Your task to perform on an android device: See recent photos Image 0: 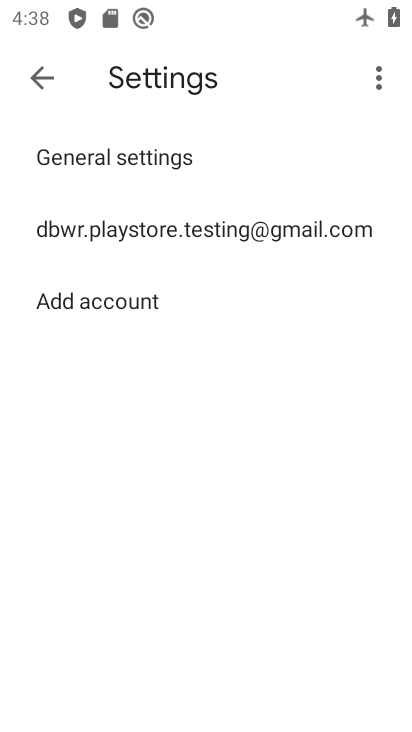
Step 0: drag from (343, 558) to (291, 322)
Your task to perform on an android device: See recent photos Image 1: 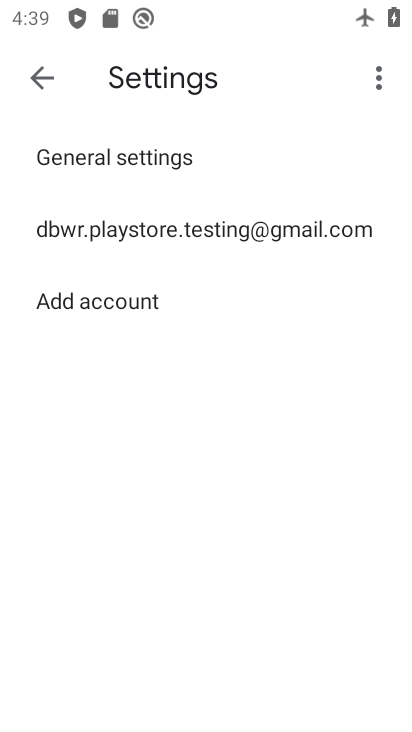
Step 1: press home button
Your task to perform on an android device: See recent photos Image 2: 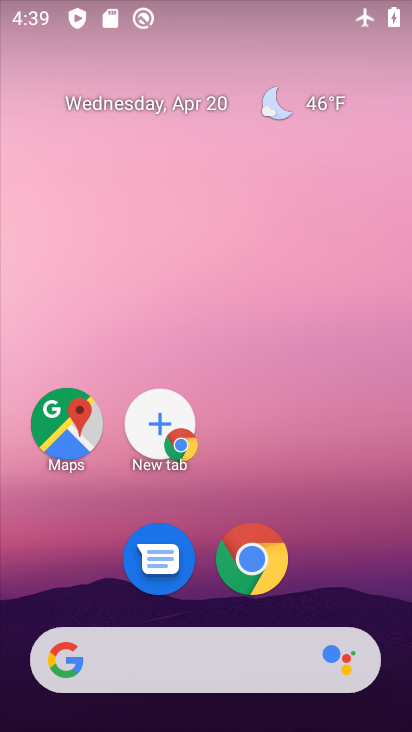
Step 2: drag from (337, 555) to (300, 0)
Your task to perform on an android device: See recent photos Image 3: 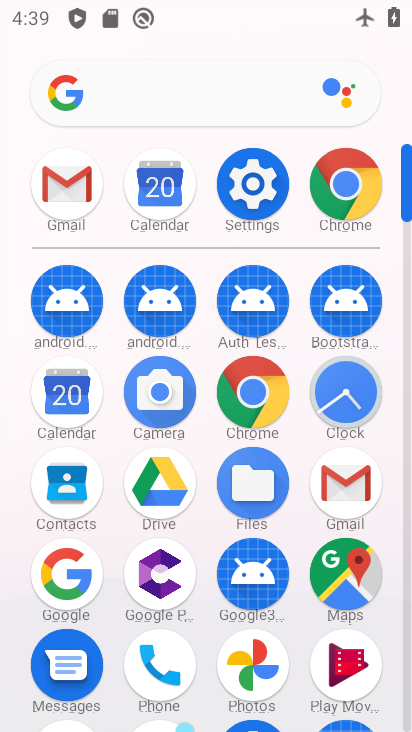
Step 3: click (244, 208)
Your task to perform on an android device: See recent photos Image 4: 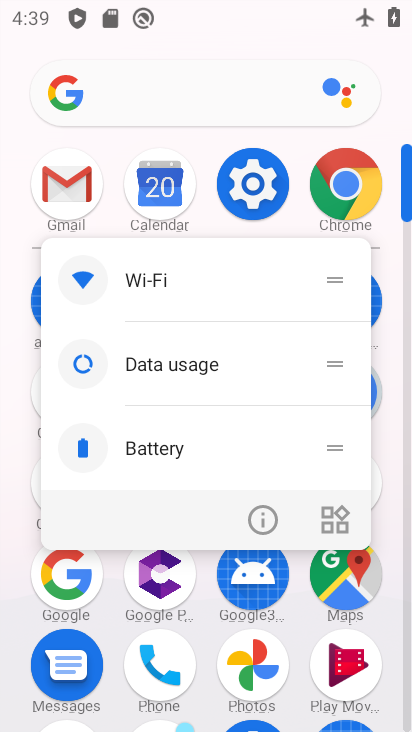
Step 4: click (244, 208)
Your task to perform on an android device: See recent photos Image 5: 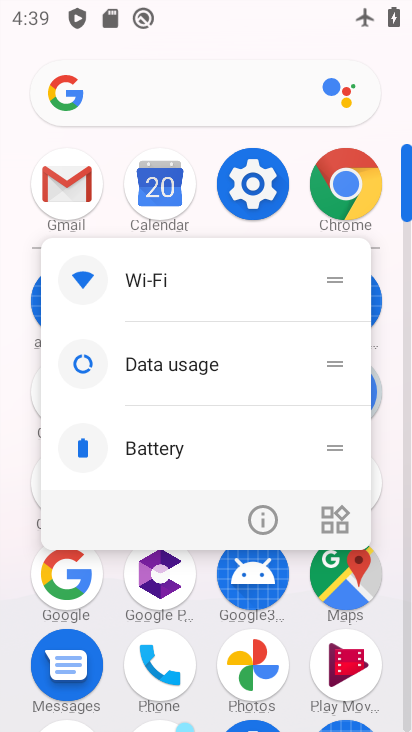
Step 5: click (247, 192)
Your task to perform on an android device: See recent photos Image 6: 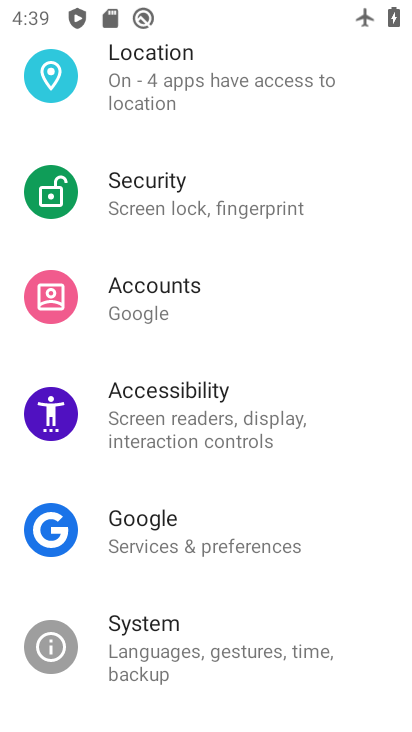
Step 6: drag from (218, 656) to (217, 359)
Your task to perform on an android device: See recent photos Image 7: 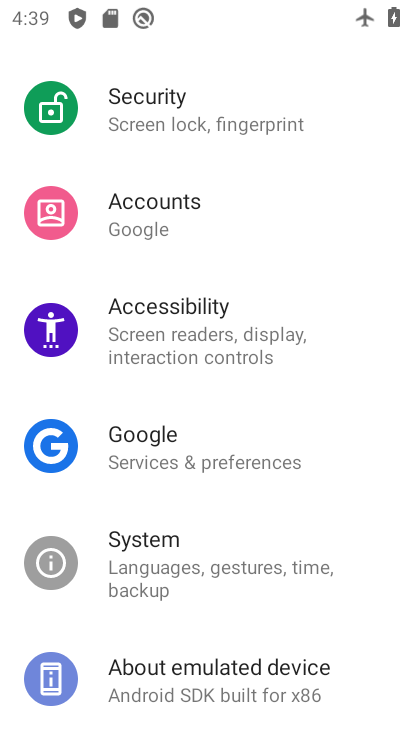
Step 7: click (202, 669)
Your task to perform on an android device: See recent photos Image 8: 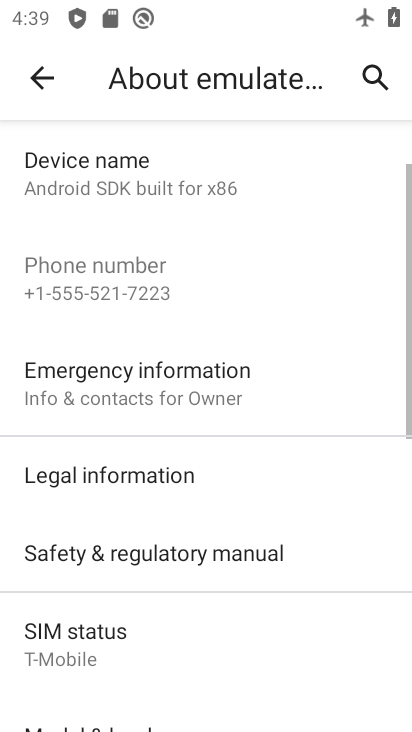
Step 8: drag from (202, 669) to (249, 113)
Your task to perform on an android device: See recent photos Image 9: 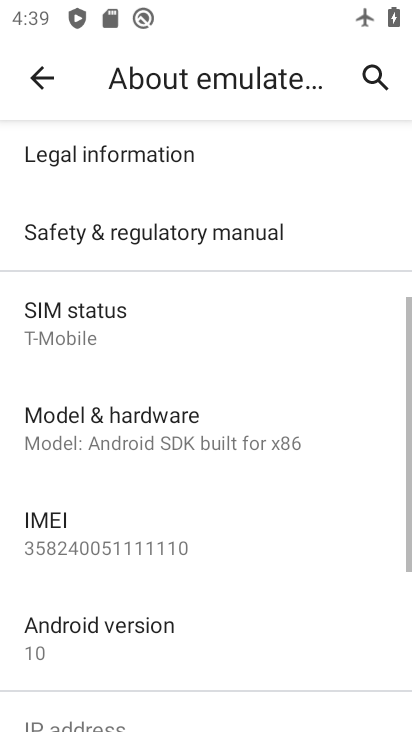
Step 9: drag from (253, 563) to (225, 202)
Your task to perform on an android device: See recent photos Image 10: 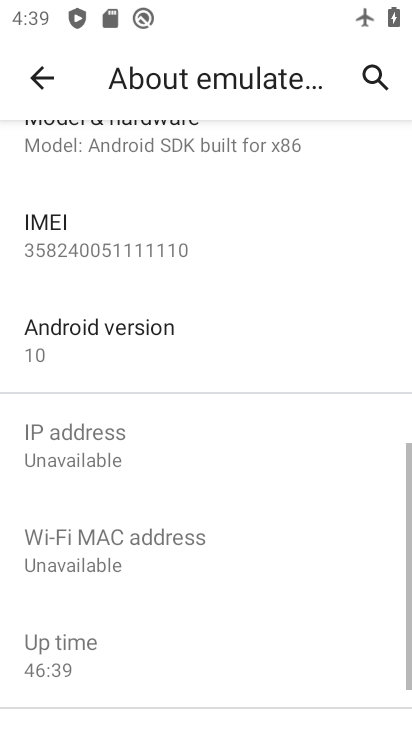
Step 10: drag from (212, 503) to (231, 161)
Your task to perform on an android device: See recent photos Image 11: 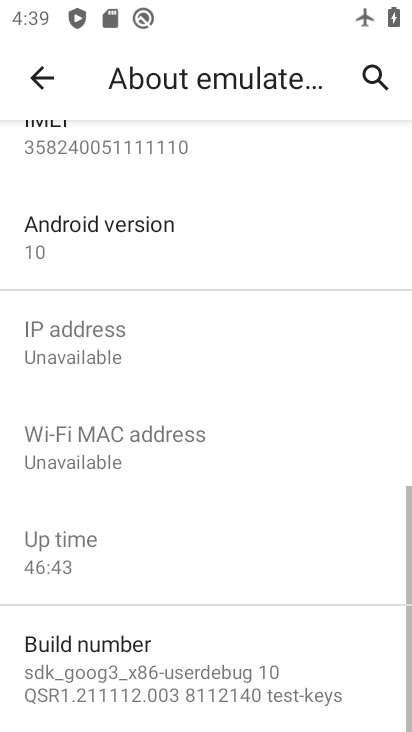
Step 11: click (55, 79)
Your task to perform on an android device: See recent photos Image 12: 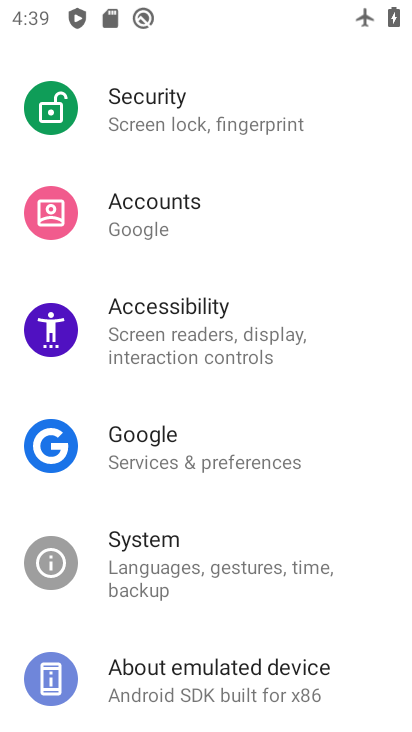
Step 12: click (182, 596)
Your task to perform on an android device: See recent photos Image 13: 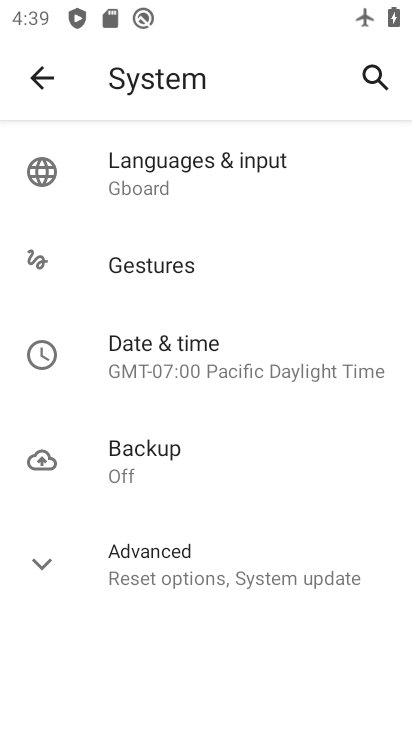
Step 13: click (182, 577)
Your task to perform on an android device: See recent photos Image 14: 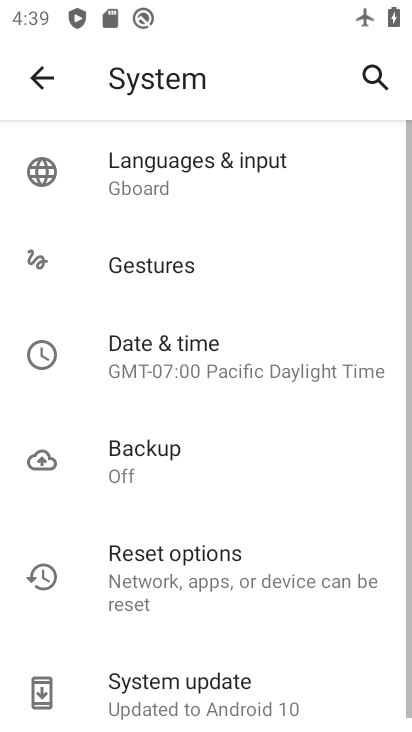
Step 14: click (182, 577)
Your task to perform on an android device: See recent photos Image 15: 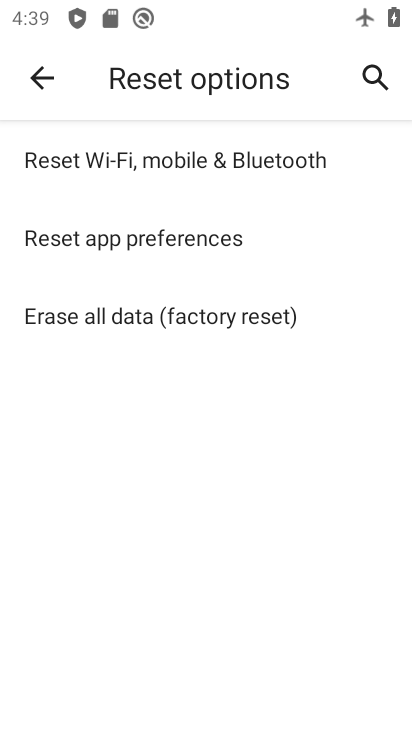
Step 15: task complete